Your task to perform on an android device: change the clock display to show seconds Image 0: 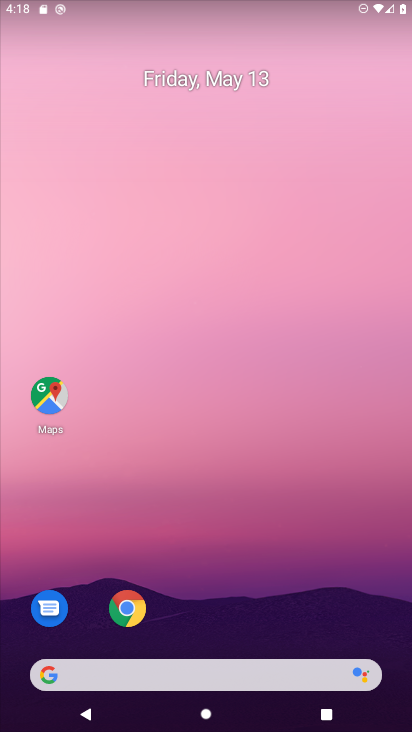
Step 0: drag from (230, 660) to (213, 102)
Your task to perform on an android device: change the clock display to show seconds Image 1: 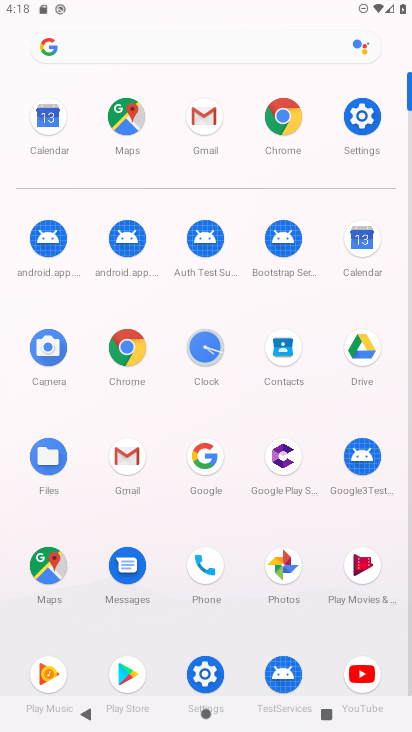
Step 1: click (210, 353)
Your task to perform on an android device: change the clock display to show seconds Image 2: 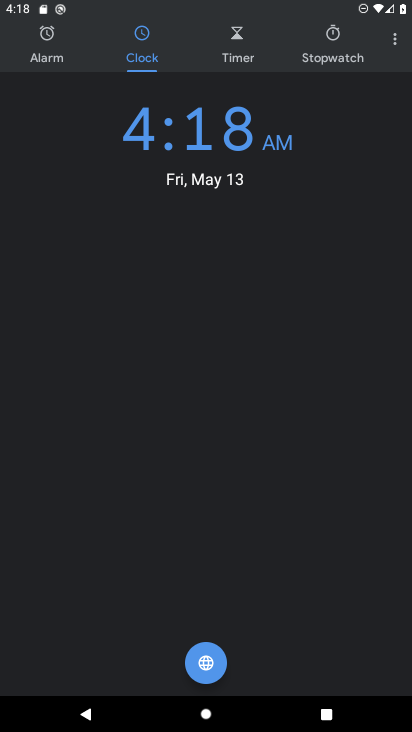
Step 2: click (389, 47)
Your task to perform on an android device: change the clock display to show seconds Image 3: 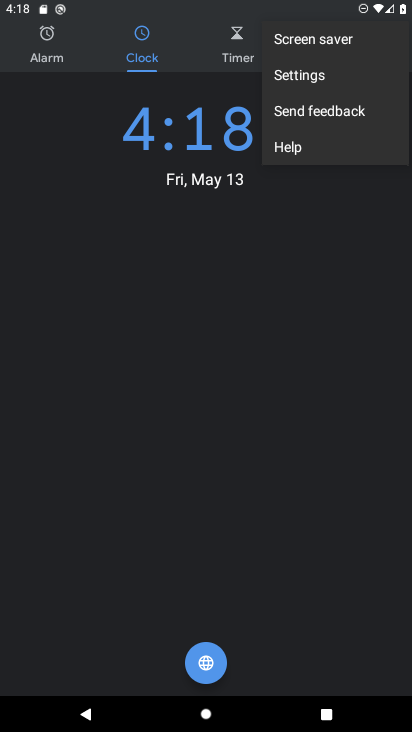
Step 3: click (347, 78)
Your task to perform on an android device: change the clock display to show seconds Image 4: 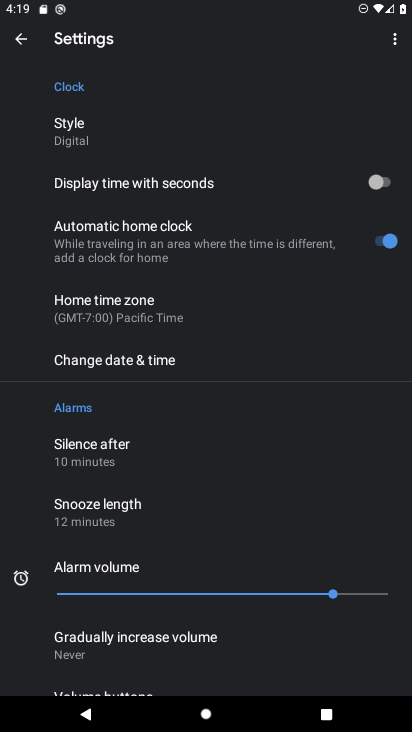
Step 4: click (388, 182)
Your task to perform on an android device: change the clock display to show seconds Image 5: 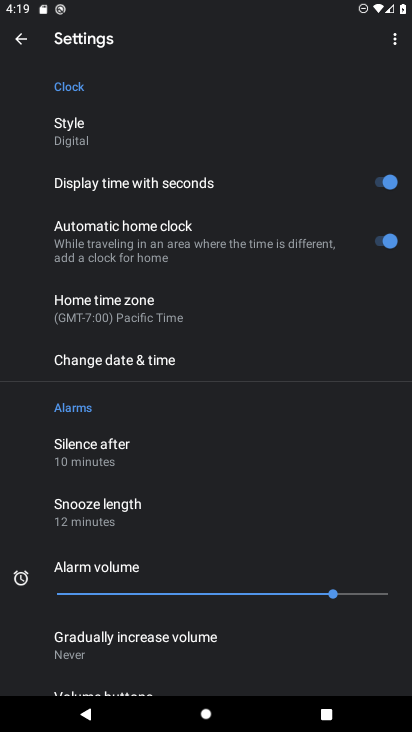
Step 5: task complete